Your task to perform on an android device: turn on translation in the chrome app Image 0: 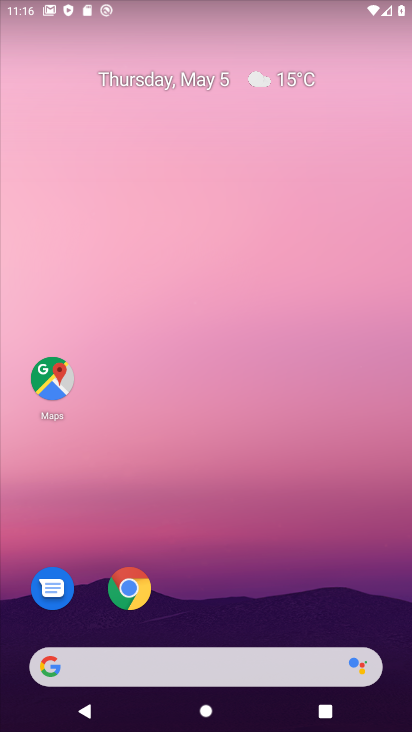
Step 0: drag from (273, 551) to (291, 71)
Your task to perform on an android device: turn on translation in the chrome app Image 1: 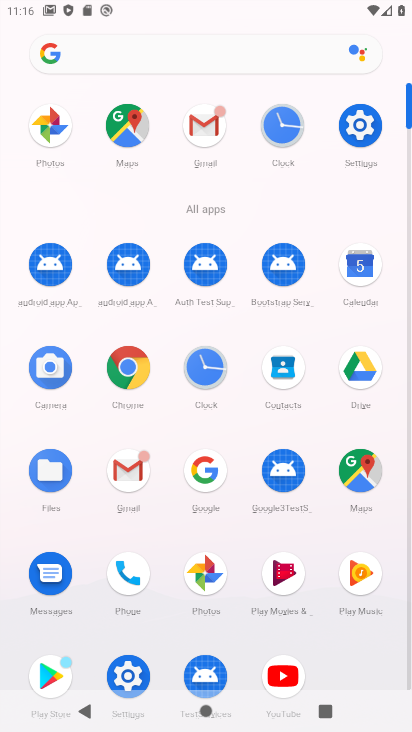
Step 1: click (128, 365)
Your task to perform on an android device: turn on translation in the chrome app Image 2: 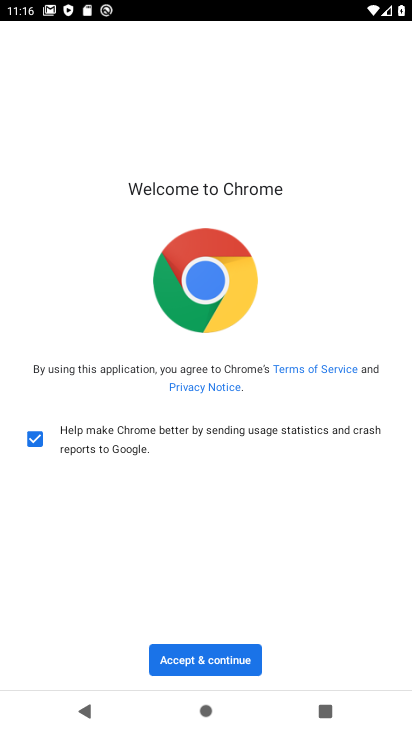
Step 2: click (236, 663)
Your task to perform on an android device: turn on translation in the chrome app Image 3: 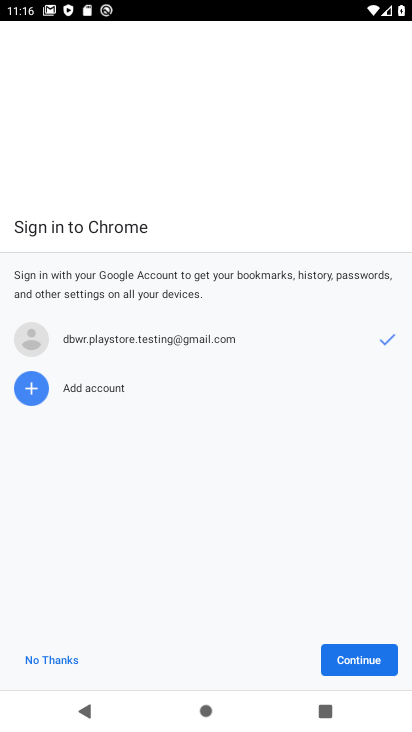
Step 3: click (344, 656)
Your task to perform on an android device: turn on translation in the chrome app Image 4: 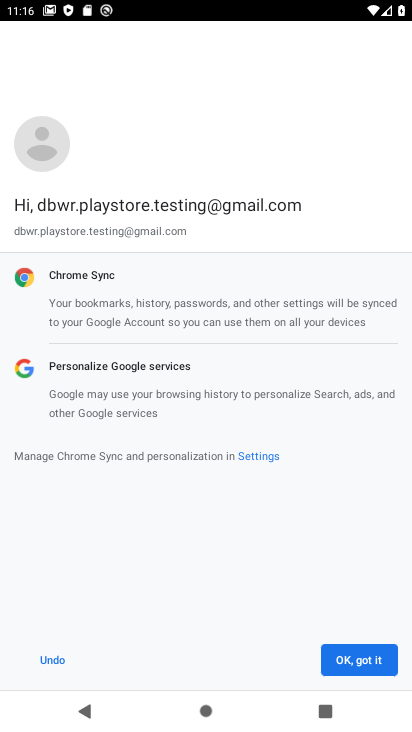
Step 4: click (347, 657)
Your task to perform on an android device: turn on translation in the chrome app Image 5: 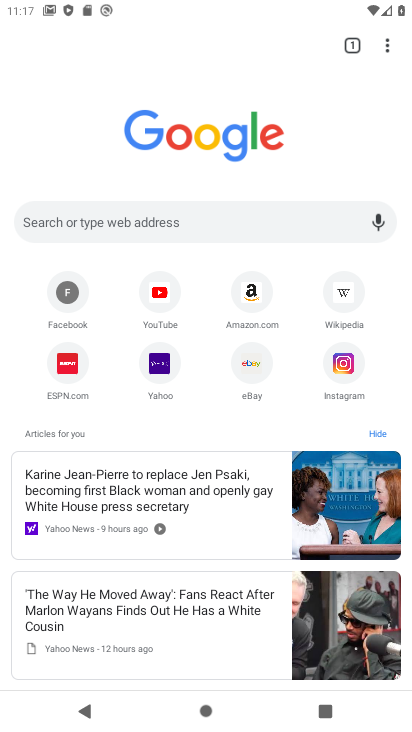
Step 5: drag from (385, 42) to (277, 389)
Your task to perform on an android device: turn on translation in the chrome app Image 6: 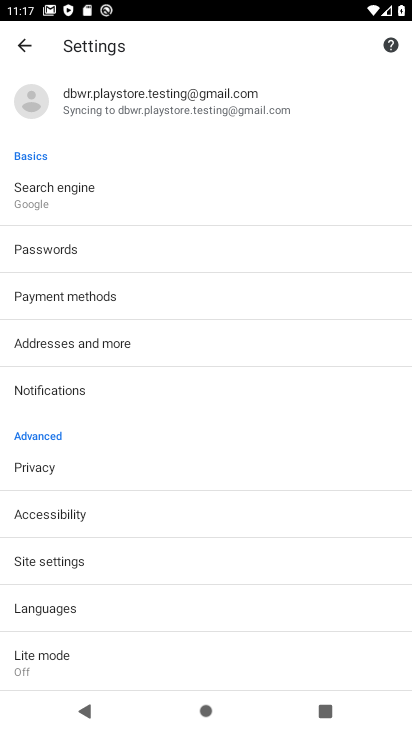
Step 6: click (138, 613)
Your task to perform on an android device: turn on translation in the chrome app Image 7: 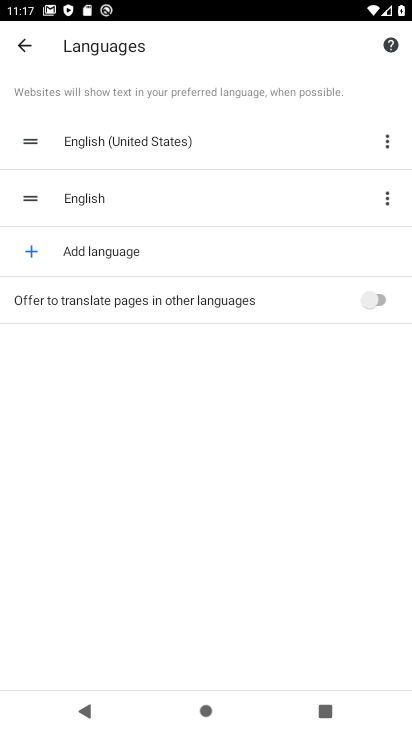
Step 7: click (370, 293)
Your task to perform on an android device: turn on translation in the chrome app Image 8: 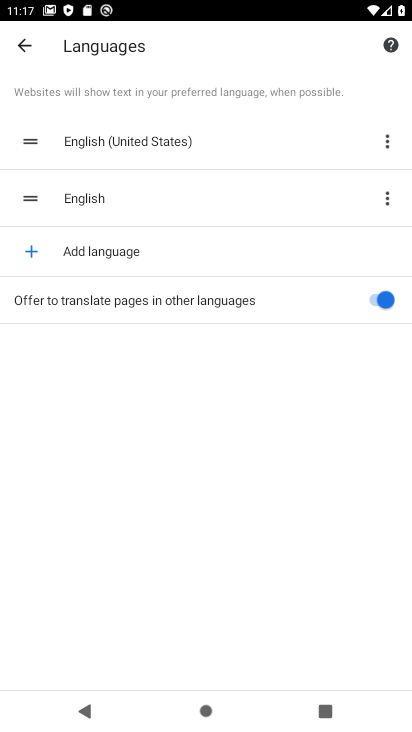
Step 8: task complete